Your task to perform on an android device: Show me productivity apps on the Play Store Image 0: 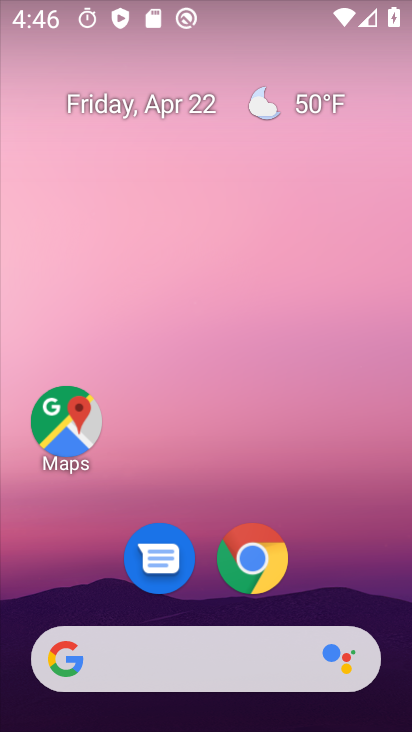
Step 0: drag from (347, 583) to (245, 192)
Your task to perform on an android device: Show me productivity apps on the Play Store Image 1: 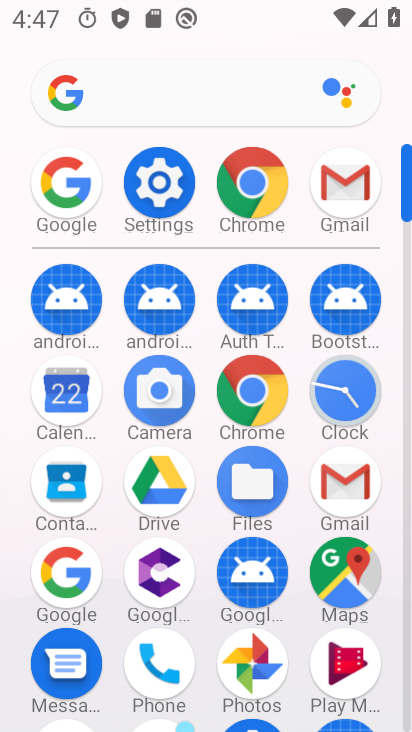
Step 1: drag from (305, 644) to (310, 353)
Your task to perform on an android device: Show me productivity apps on the Play Store Image 2: 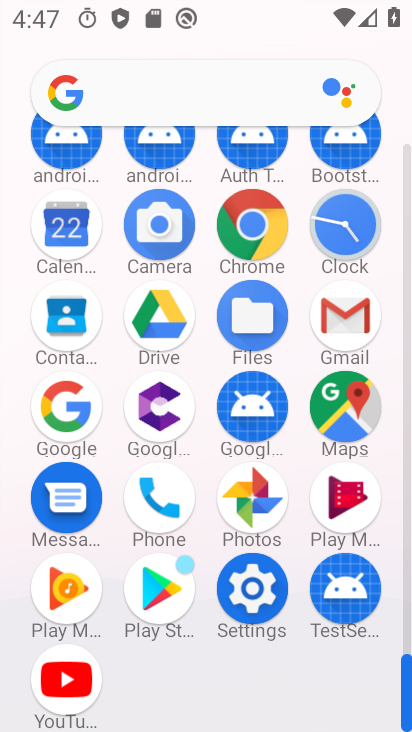
Step 2: click (170, 602)
Your task to perform on an android device: Show me productivity apps on the Play Store Image 3: 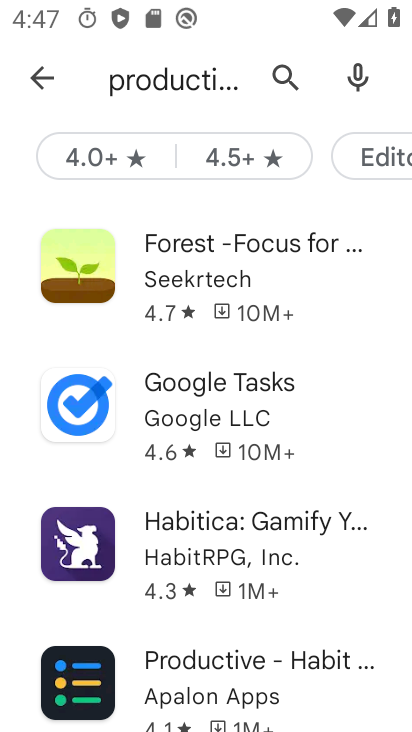
Step 3: click (41, 81)
Your task to perform on an android device: Show me productivity apps on the Play Store Image 4: 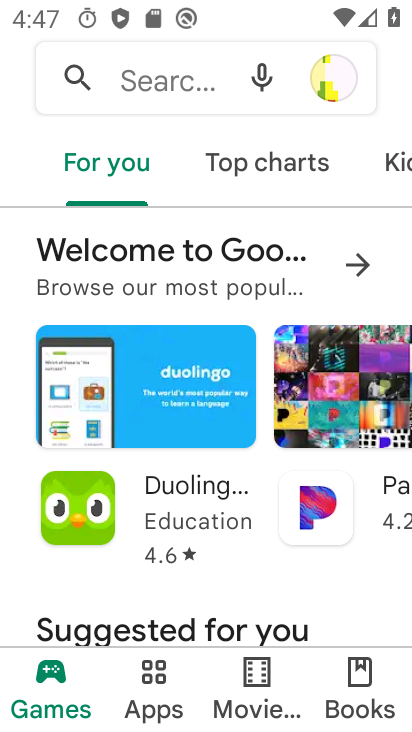
Step 4: task complete